Your task to perform on an android device: toggle notification dots Image 0: 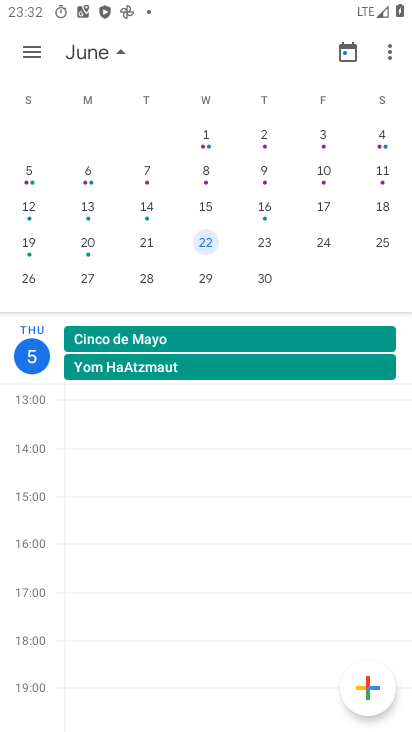
Step 0: press home button
Your task to perform on an android device: toggle notification dots Image 1: 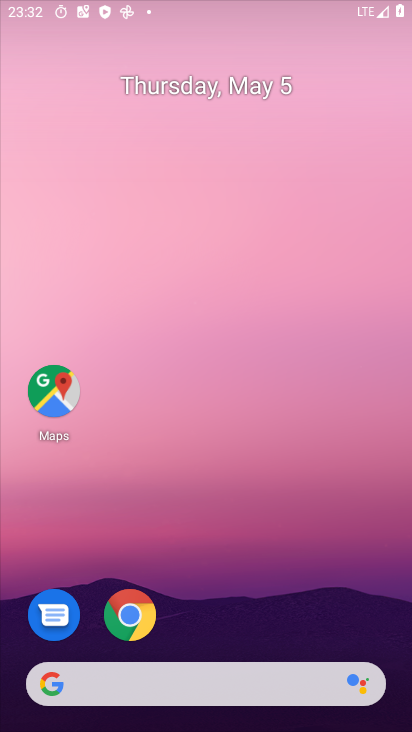
Step 1: drag from (251, 578) to (280, 66)
Your task to perform on an android device: toggle notification dots Image 2: 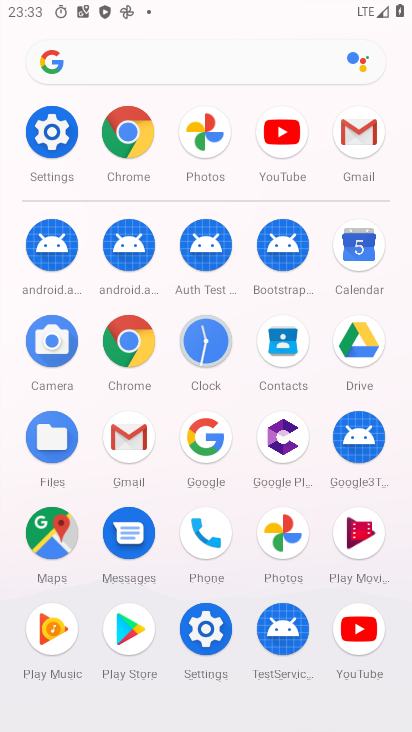
Step 2: click (55, 131)
Your task to perform on an android device: toggle notification dots Image 3: 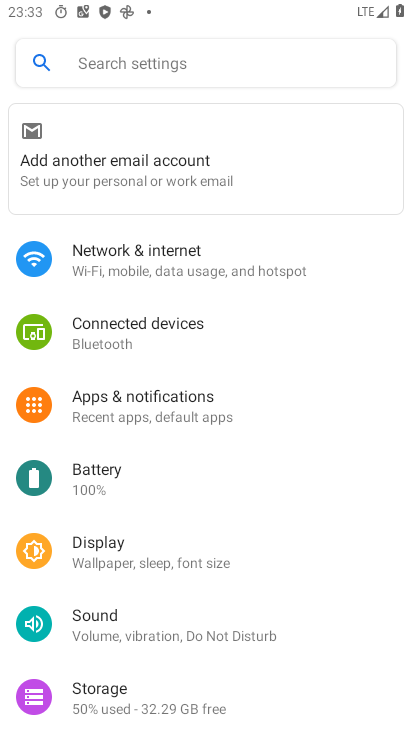
Step 3: click (165, 401)
Your task to perform on an android device: toggle notification dots Image 4: 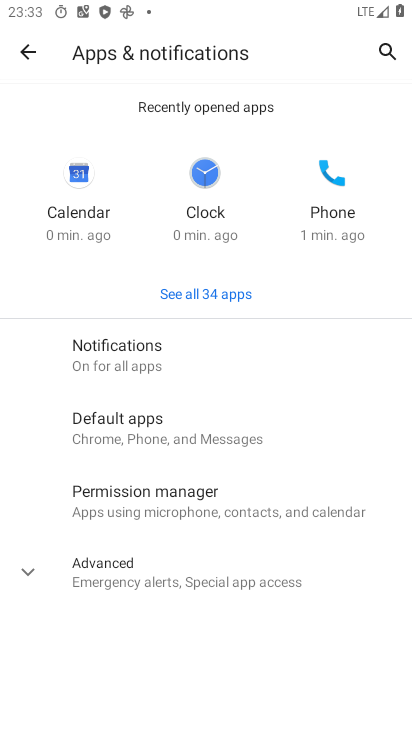
Step 4: click (155, 355)
Your task to perform on an android device: toggle notification dots Image 5: 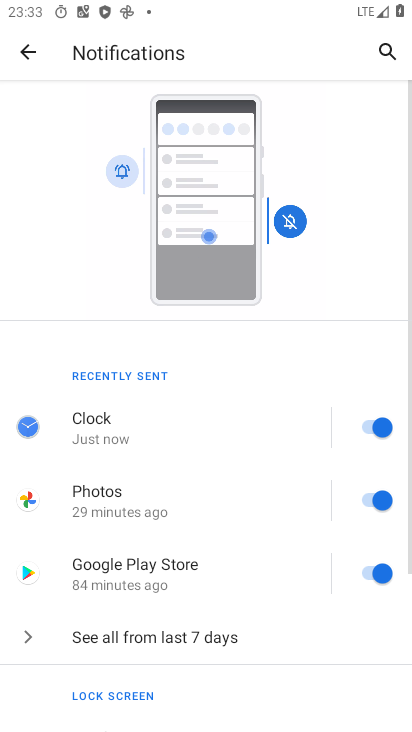
Step 5: drag from (204, 640) to (233, 148)
Your task to perform on an android device: toggle notification dots Image 6: 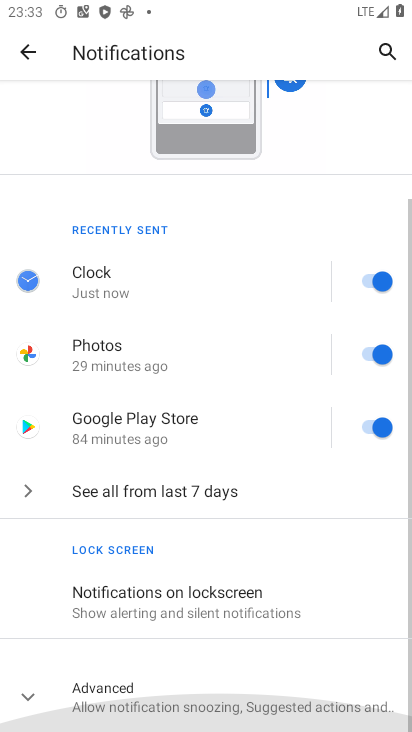
Step 6: click (109, 711)
Your task to perform on an android device: toggle notification dots Image 7: 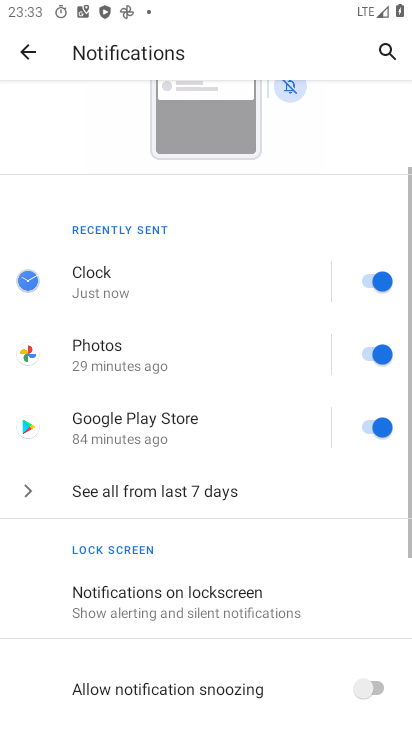
Step 7: drag from (213, 612) to (271, 93)
Your task to perform on an android device: toggle notification dots Image 8: 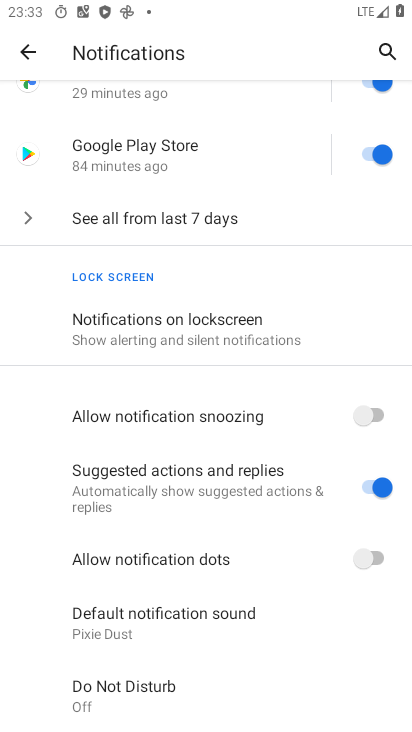
Step 8: click (373, 557)
Your task to perform on an android device: toggle notification dots Image 9: 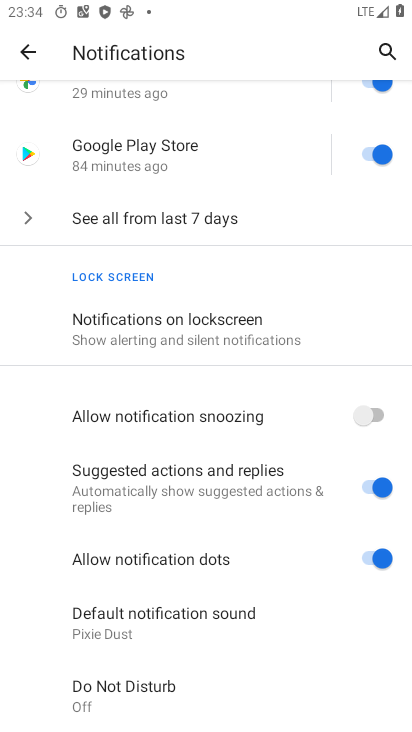
Step 9: task complete